Your task to perform on an android device: change the clock display to analog Image 0: 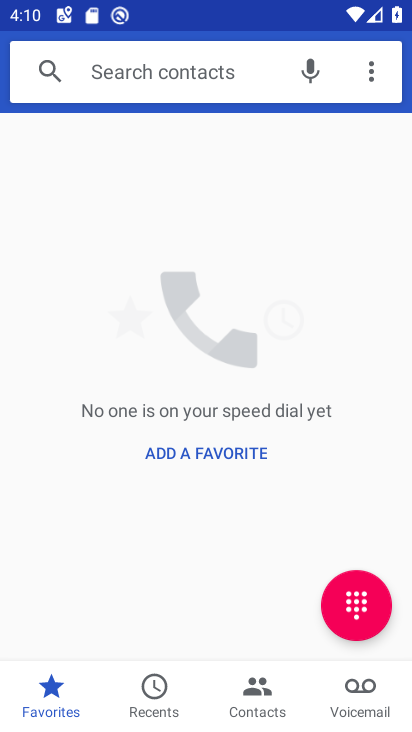
Step 0: press home button
Your task to perform on an android device: change the clock display to analog Image 1: 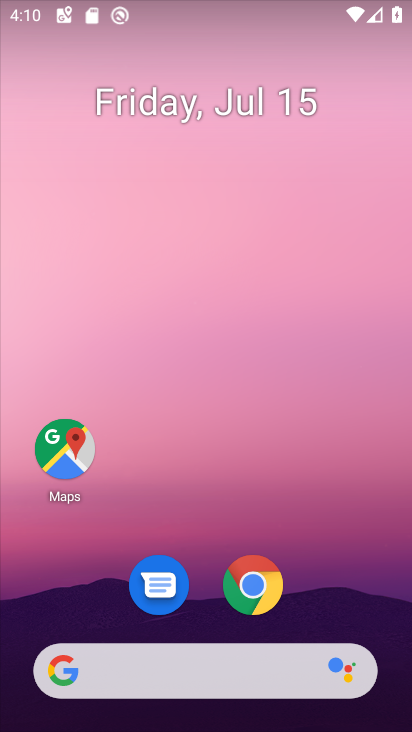
Step 1: drag from (338, 606) to (341, 59)
Your task to perform on an android device: change the clock display to analog Image 2: 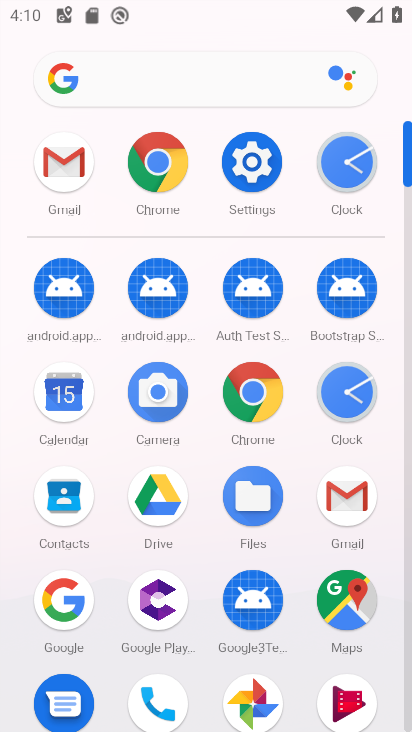
Step 2: click (350, 156)
Your task to perform on an android device: change the clock display to analog Image 3: 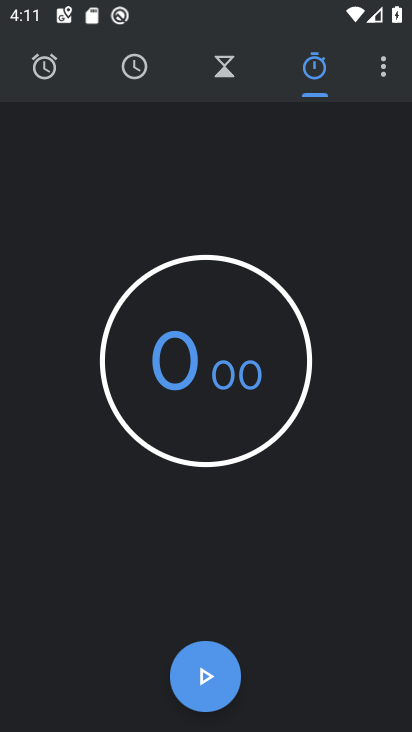
Step 3: click (137, 75)
Your task to perform on an android device: change the clock display to analog Image 4: 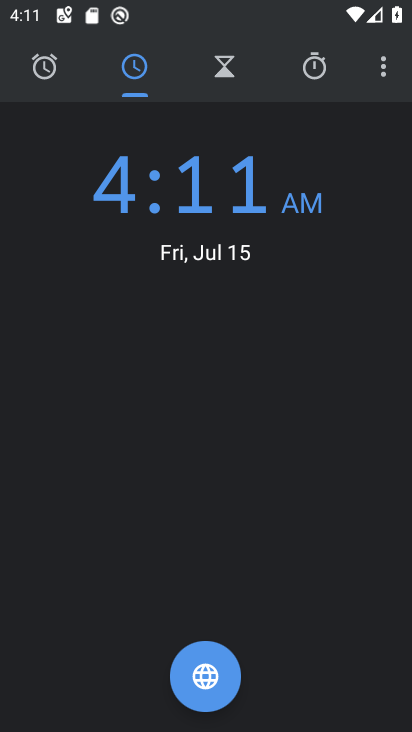
Step 4: click (377, 65)
Your task to perform on an android device: change the clock display to analog Image 5: 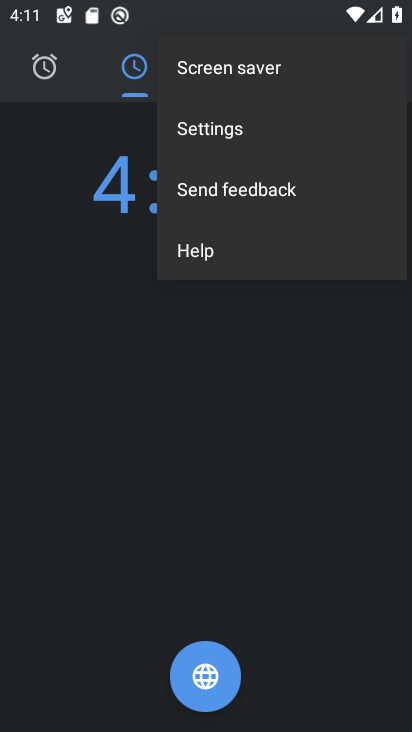
Step 5: click (271, 133)
Your task to perform on an android device: change the clock display to analog Image 6: 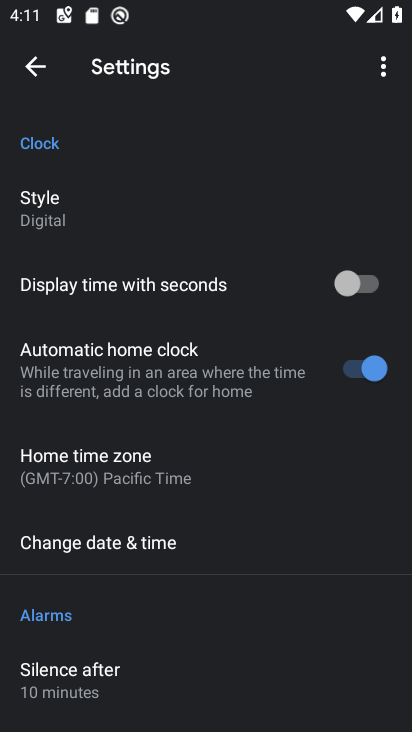
Step 6: click (78, 211)
Your task to perform on an android device: change the clock display to analog Image 7: 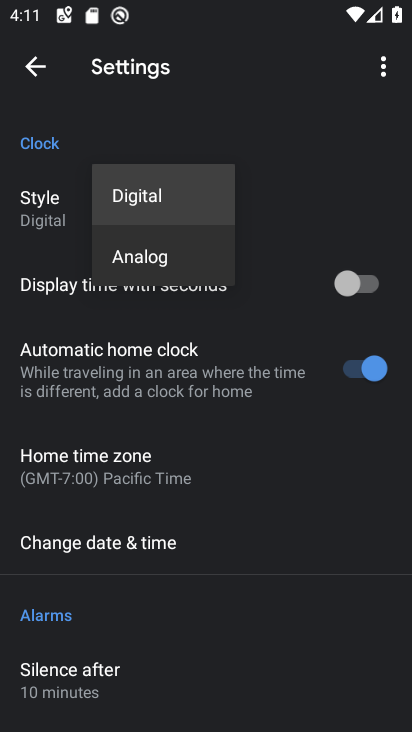
Step 7: click (117, 248)
Your task to perform on an android device: change the clock display to analog Image 8: 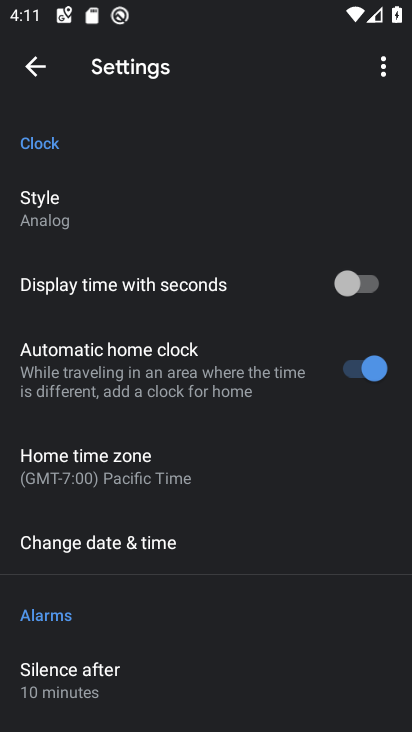
Step 8: click (46, 70)
Your task to perform on an android device: change the clock display to analog Image 9: 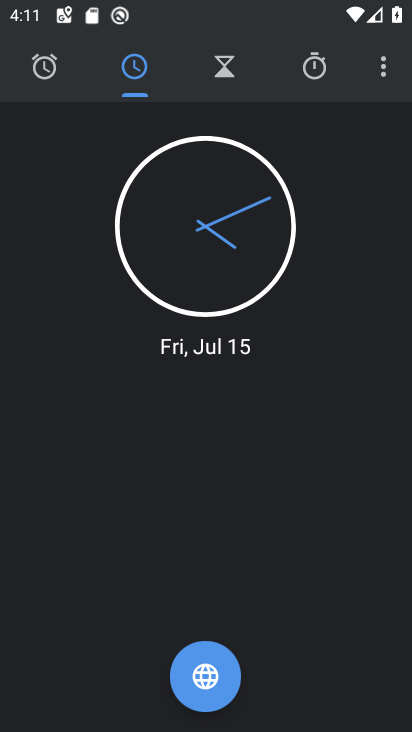
Step 9: task complete